Your task to perform on an android device: change the upload size in google photos Image 0: 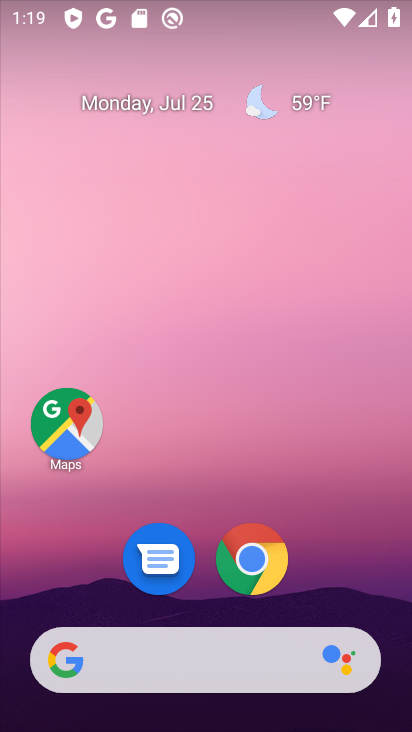
Step 0: drag from (206, 582) to (253, 12)
Your task to perform on an android device: change the upload size in google photos Image 1: 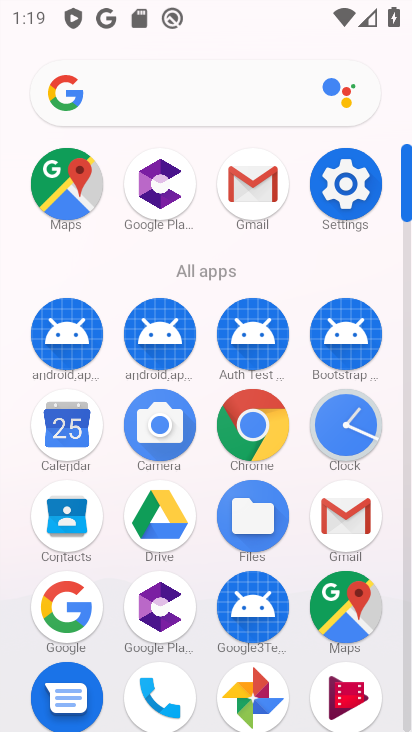
Step 1: click (252, 698)
Your task to perform on an android device: change the upload size in google photos Image 2: 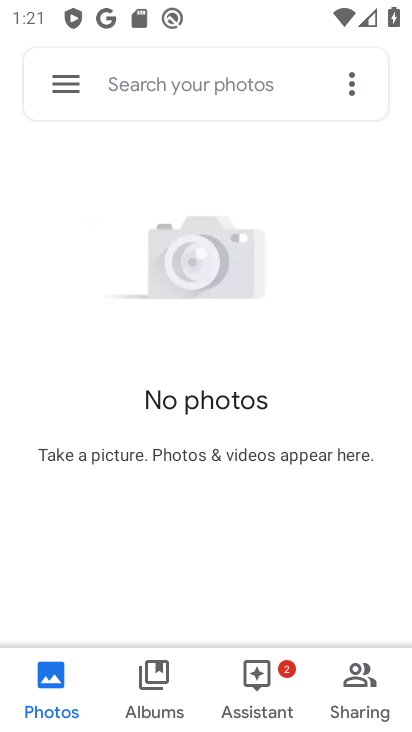
Step 2: click (70, 71)
Your task to perform on an android device: change the upload size in google photos Image 3: 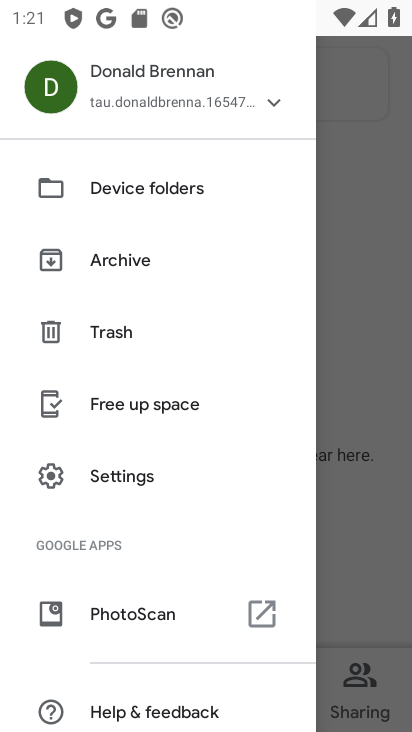
Step 3: click (139, 463)
Your task to perform on an android device: change the upload size in google photos Image 4: 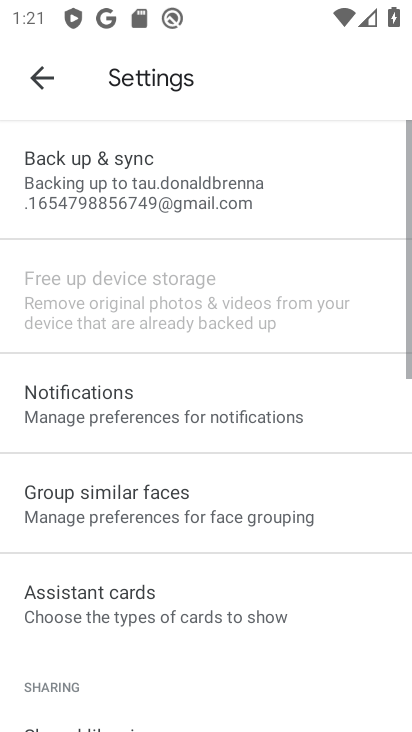
Step 4: click (159, 174)
Your task to perform on an android device: change the upload size in google photos Image 5: 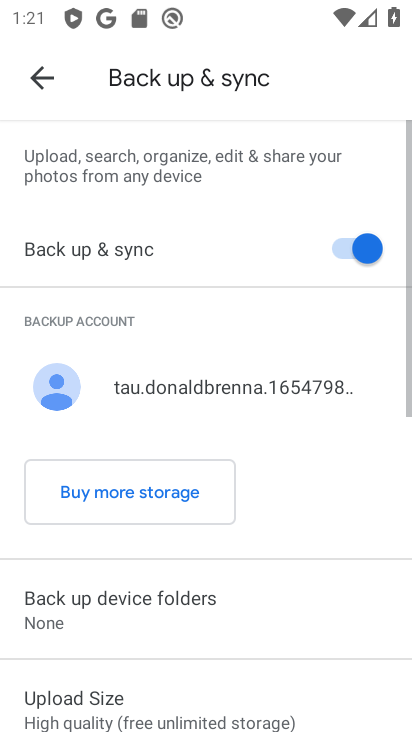
Step 5: click (118, 688)
Your task to perform on an android device: change the upload size in google photos Image 6: 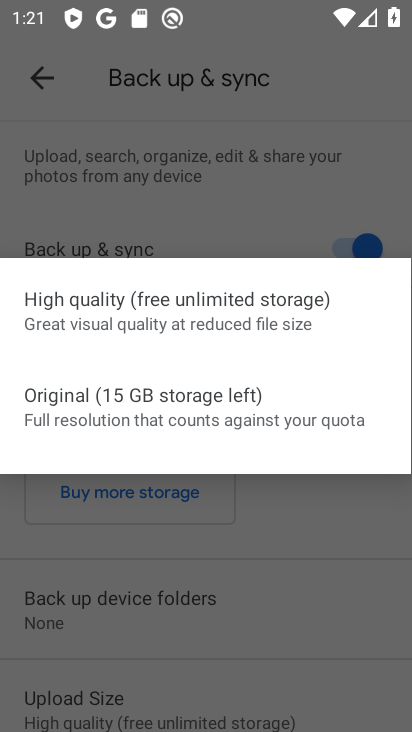
Step 6: click (72, 413)
Your task to perform on an android device: change the upload size in google photos Image 7: 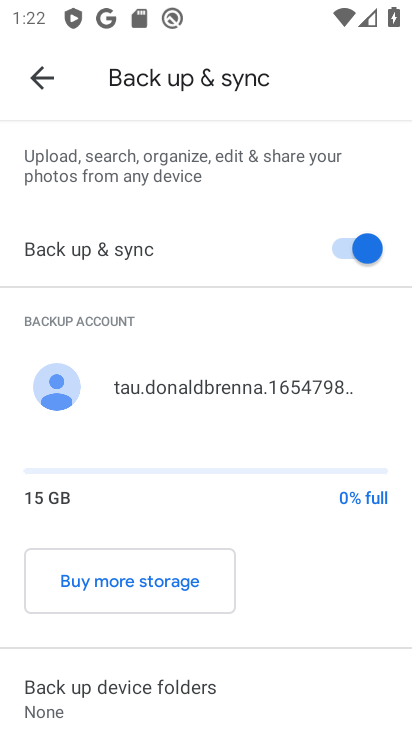
Step 7: task complete